Your task to perform on an android device: What's the weather? Image 0: 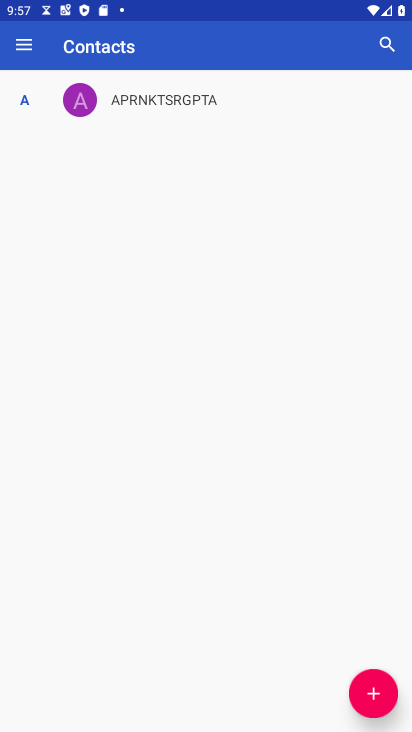
Step 0: press home button
Your task to perform on an android device: What's the weather? Image 1: 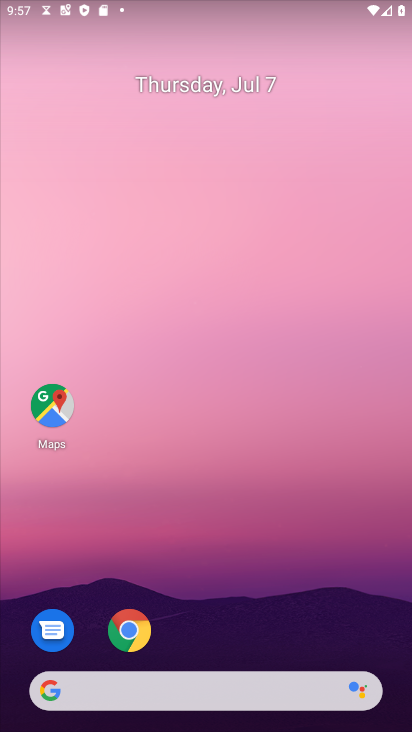
Step 1: drag from (244, 671) to (220, 226)
Your task to perform on an android device: What's the weather? Image 2: 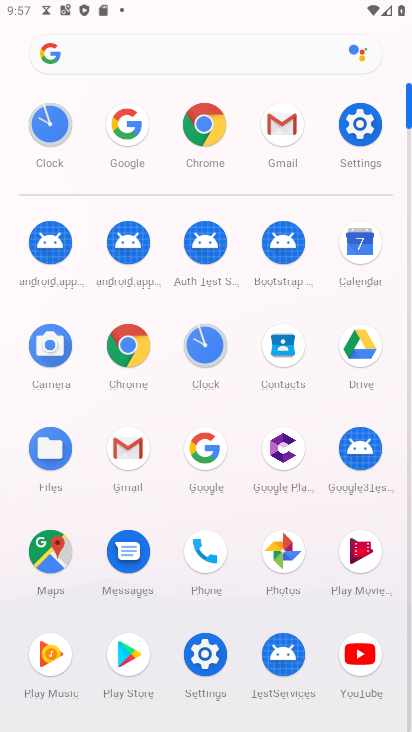
Step 2: click (127, 128)
Your task to perform on an android device: What's the weather? Image 3: 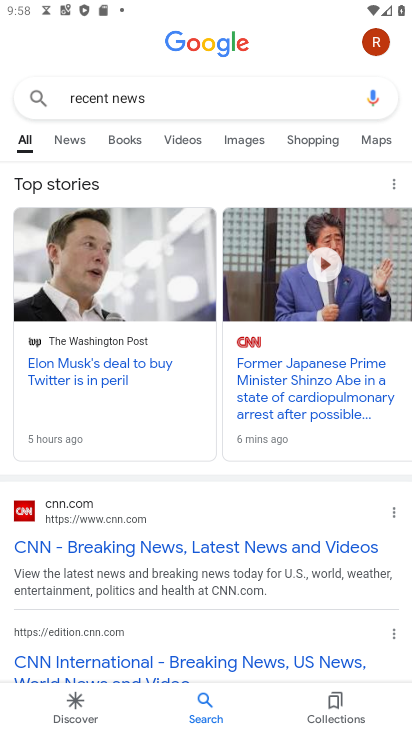
Step 3: click (111, 96)
Your task to perform on an android device: What's the weather? Image 4: 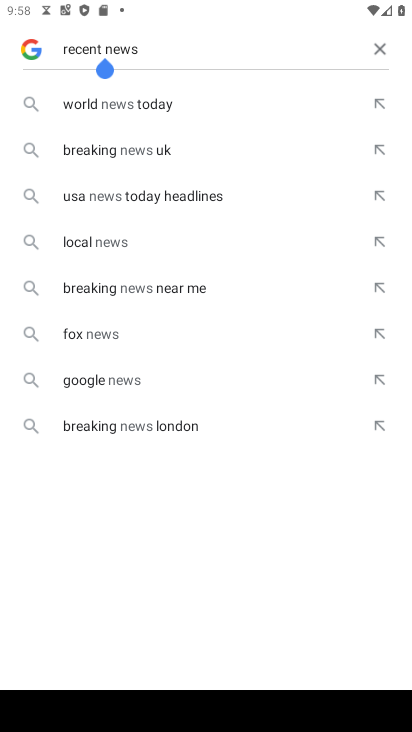
Step 4: click (378, 46)
Your task to perform on an android device: What's the weather? Image 5: 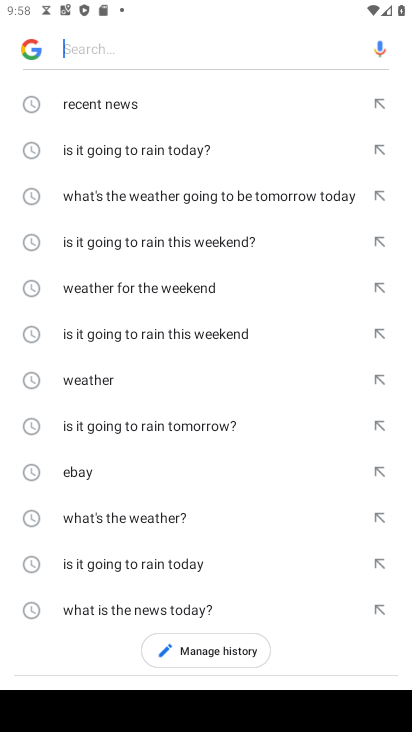
Step 5: click (151, 518)
Your task to perform on an android device: What's the weather? Image 6: 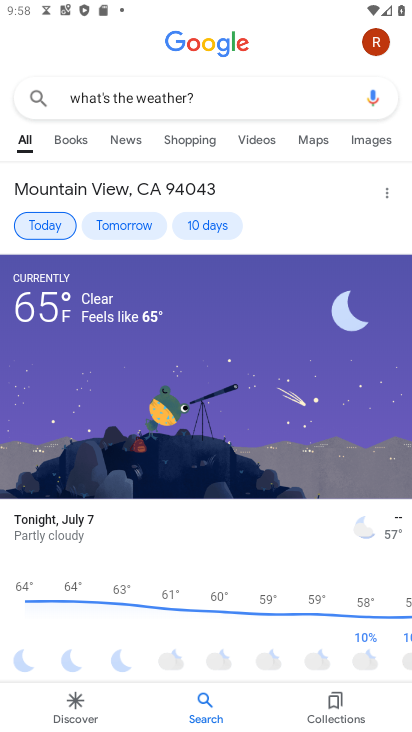
Step 6: task complete